Your task to perform on an android device: empty trash in the gmail app Image 0: 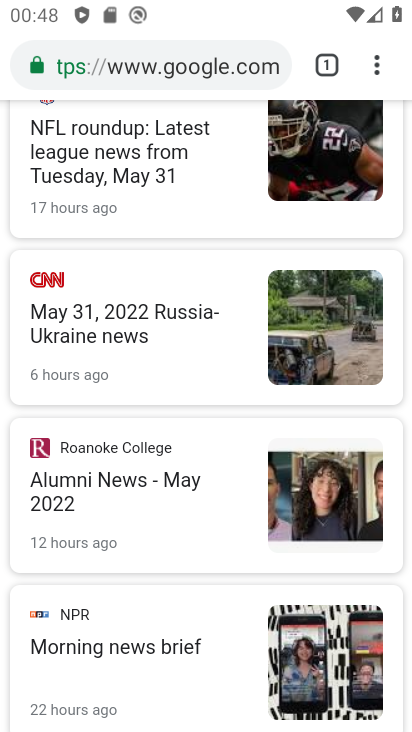
Step 0: press home button
Your task to perform on an android device: empty trash in the gmail app Image 1: 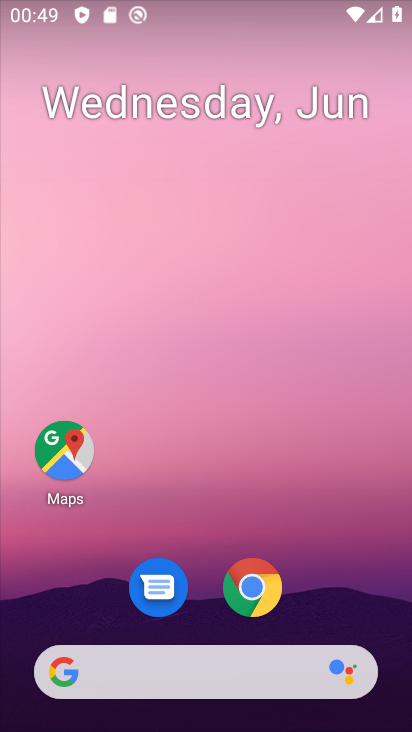
Step 1: drag from (335, 578) to (261, 32)
Your task to perform on an android device: empty trash in the gmail app Image 2: 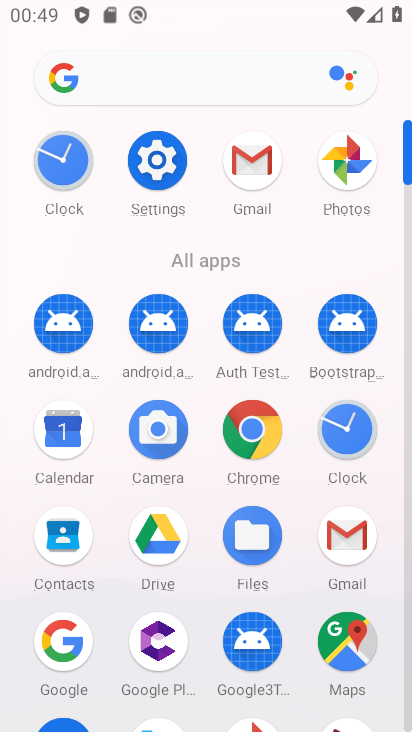
Step 2: click (248, 165)
Your task to perform on an android device: empty trash in the gmail app Image 3: 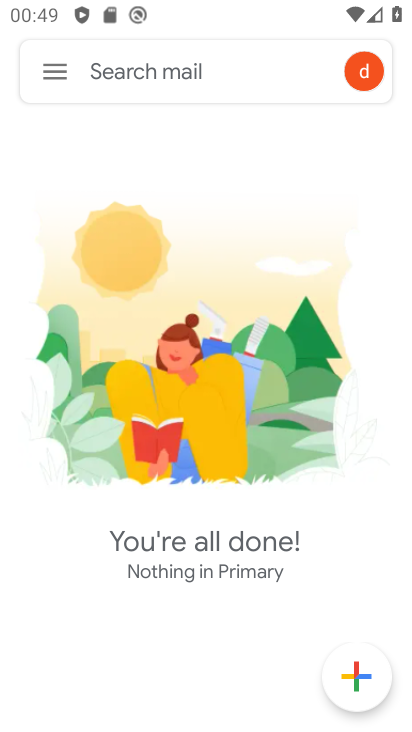
Step 3: click (65, 70)
Your task to perform on an android device: empty trash in the gmail app Image 4: 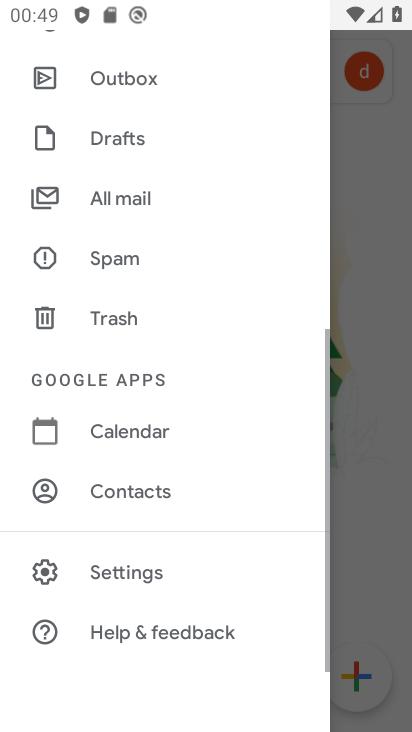
Step 4: click (111, 321)
Your task to perform on an android device: empty trash in the gmail app Image 5: 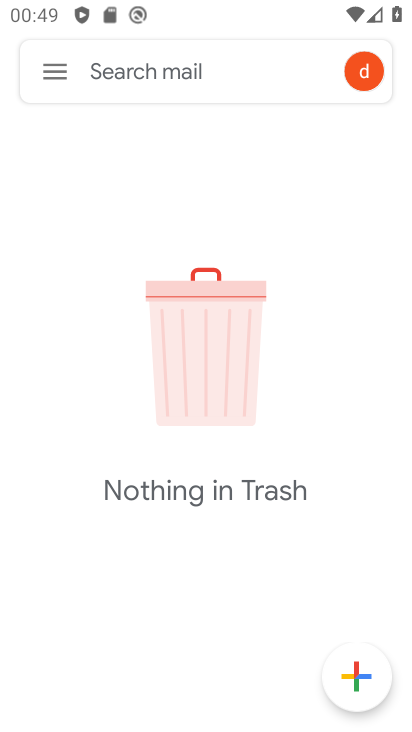
Step 5: task complete